Your task to perform on an android device: Go to Google Image 0: 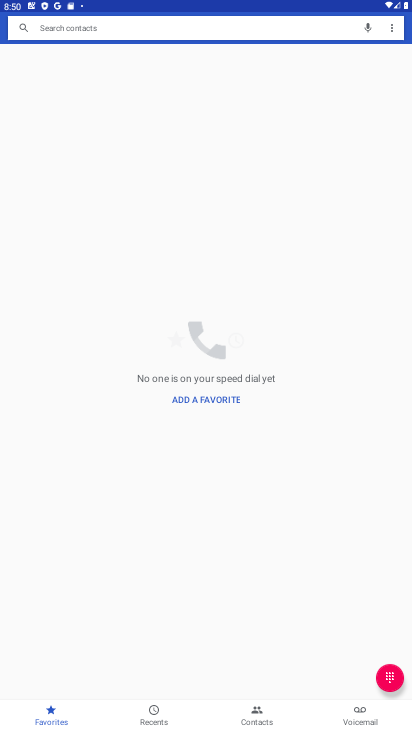
Step 0: press home button
Your task to perform on an android device: Go to Google Image 1: 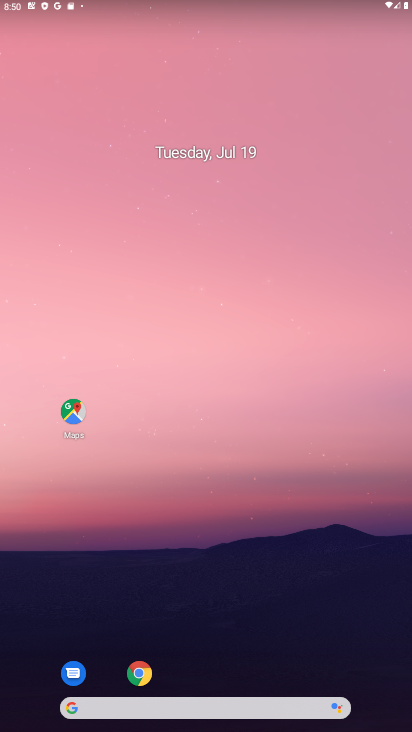
Step 1: click (134, 668)
Your task to perform on an android device: Go to Google Image 2: 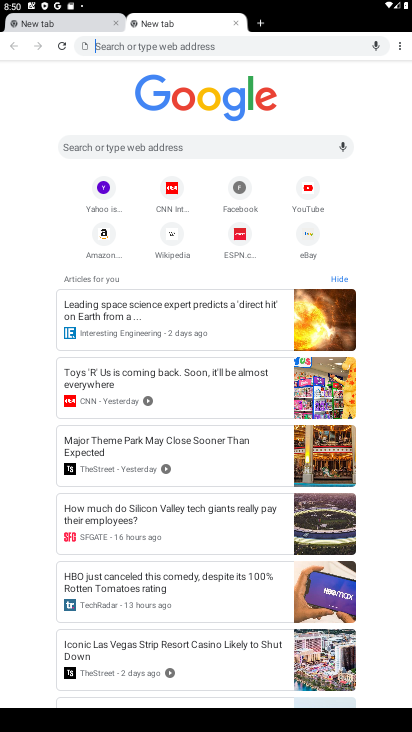
Step 2: click (188, 154)
Your task to perform on an android device: Go to Google Image 3: 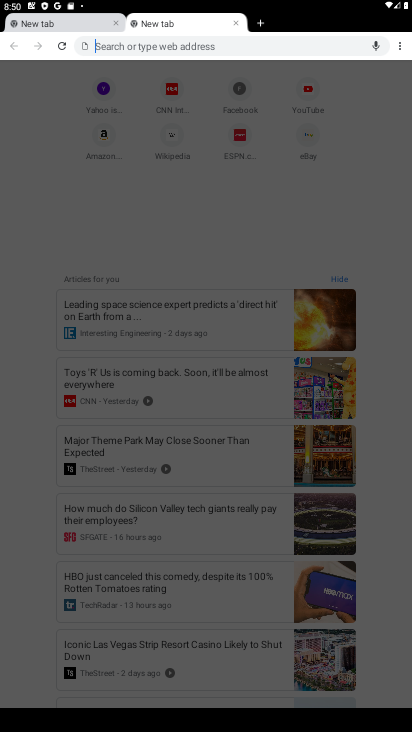
Step 3: type "google.com"
Your task to perform on an android device: Go to Google Image 4: 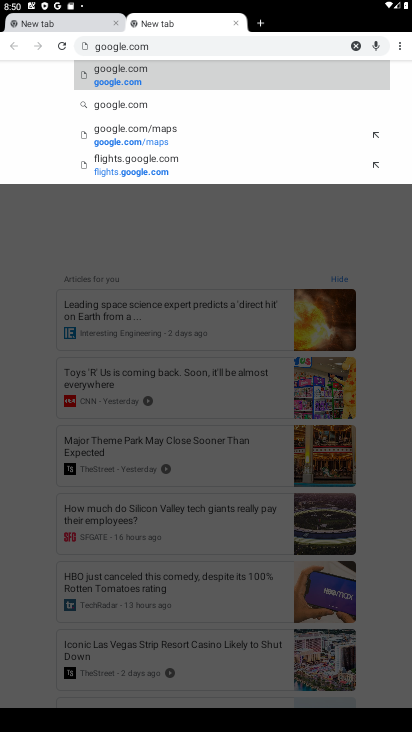
Step 4: click (150, 74)
Your task to perform on an android device: Go to Google Image 5: 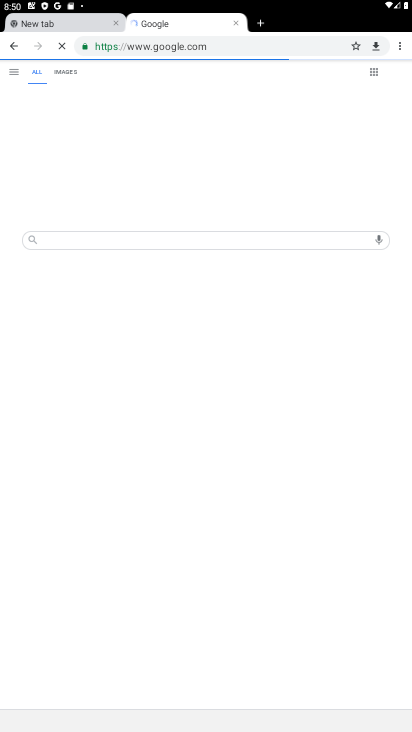
Step 5: task complete